Your task to perform on an android device: toggle sleep mode Image 0: 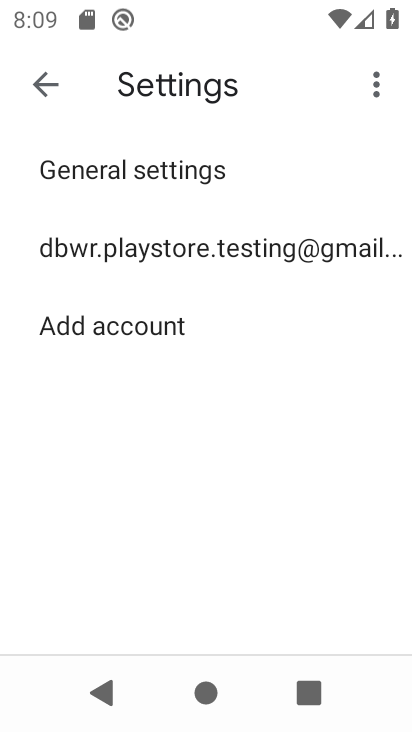
Step 0: press home button
Your task to perform on an android device: toggle sleep mode Image 1: 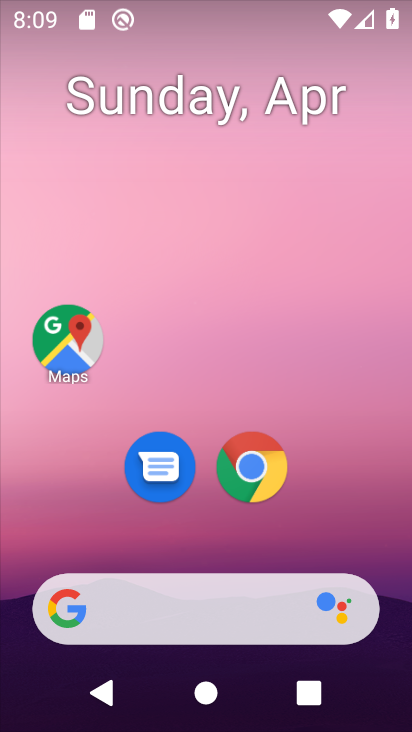
Step 1: drag from (316, 290) to (314, 54)
Your task to perform on an android device: toggle sleep mode Image 2: 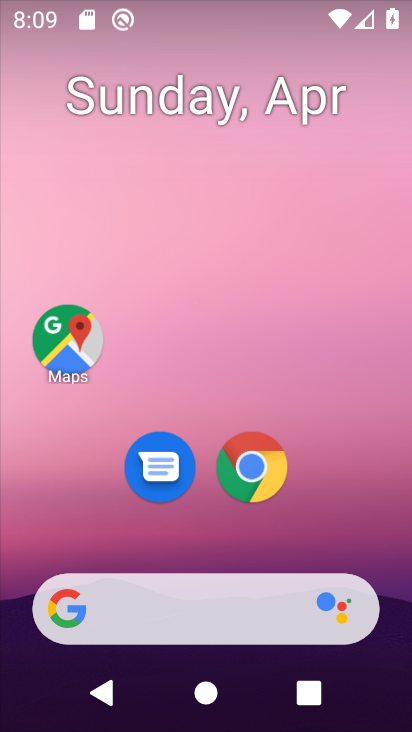
Step 2: drag from (322, 543) to (253, 15)
Your task to perform on an android device: toggle sleep mode Image 3: 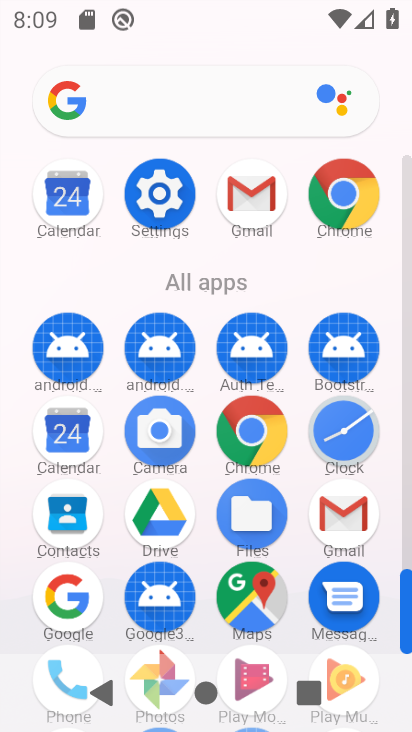
Step 3: click (152, 176)
Your task to perform on an android device: toggle sleep mode Image 4: 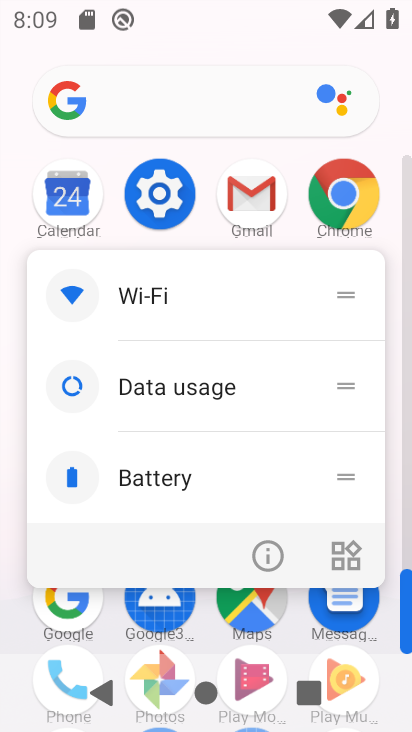
Step 4: click (152, 176)
Your task to perform on an android device: toggle sleep mode Image 5: 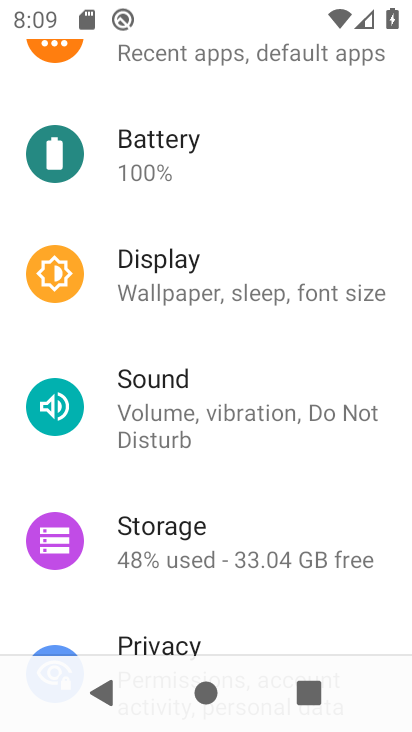
Step 5: drag from (268, 386) to (288, 464)
Your task to perform on an android device: toggle sleep mode Image 6: 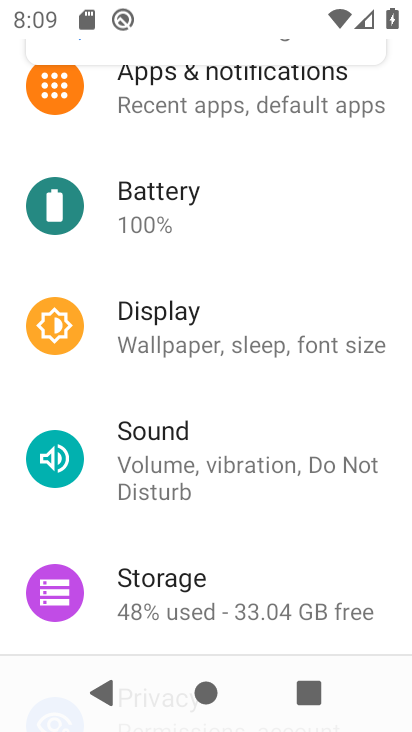
Step 6: drag from (248, 328) to (276, 478)
Your task to perform on an android device: toggle sleep mode Image 7: 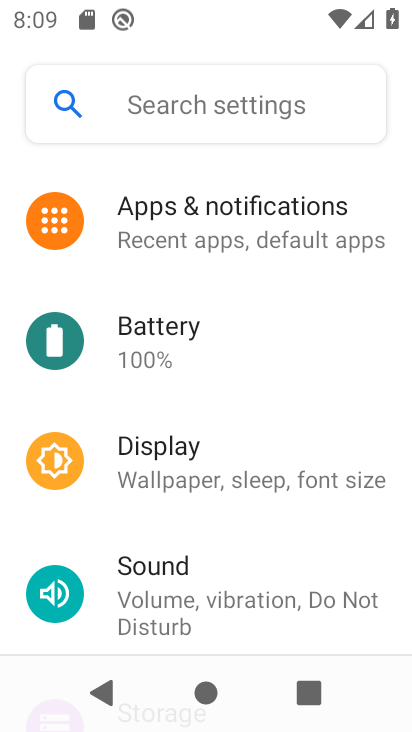
Step 7: drag from (258, 338) to (263, 428)
Your task to perform on an android device: toggle sleep mode Image 8: 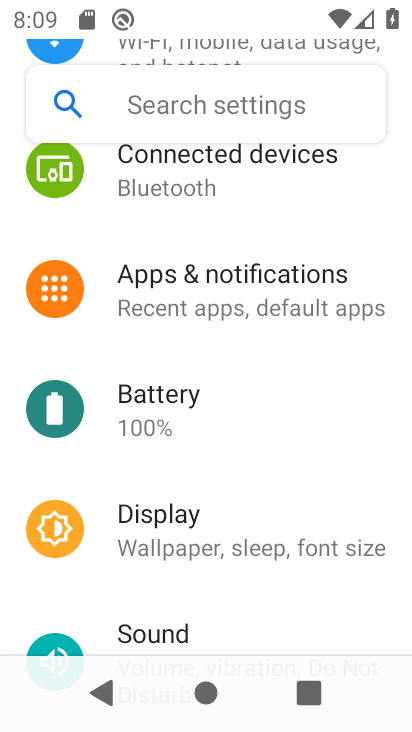
Step 8: drag from (233, 344) to (252, 443)
Your task to perform on an android device: toggle sleep mode Image 9: 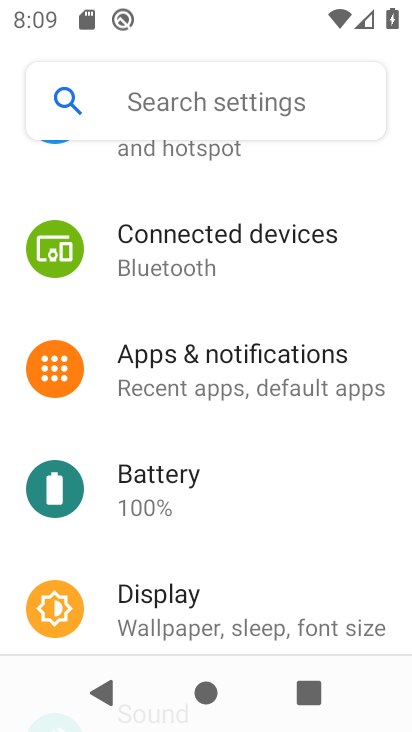
Step 9: drag from (241, 361) to (262, 464)
Your task to perform on an android device: toggle sleep mode Image 10: 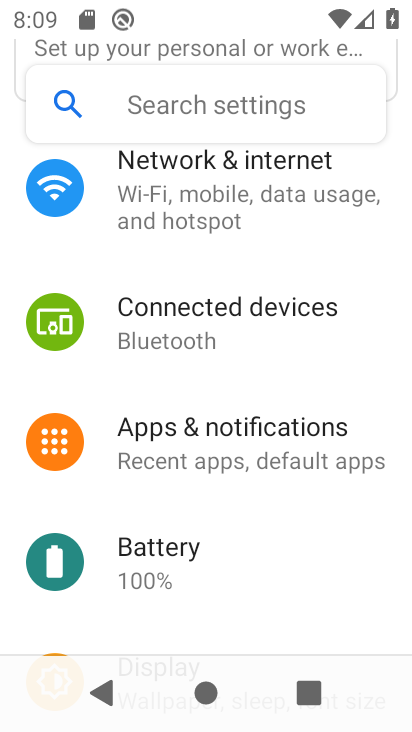
Step 10: drag from (218, 304) to (246, 407)
Your task to perform on an android device: toggle sleep mode Image 11: 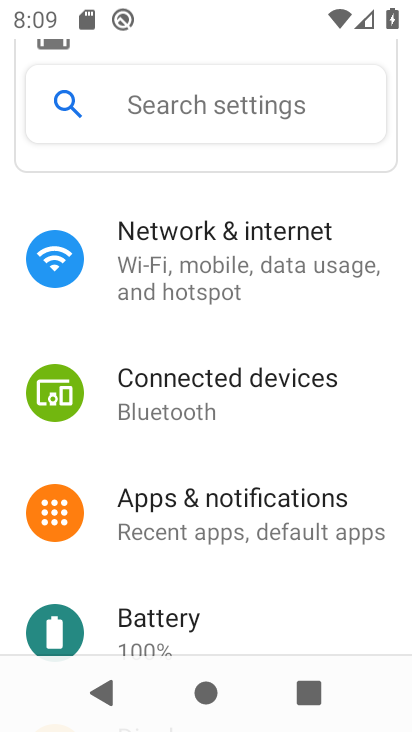
Step 11: drag from (229, 325) to (258, 416)
Your task to perform on an android device: toggle sleep mode Image 12: 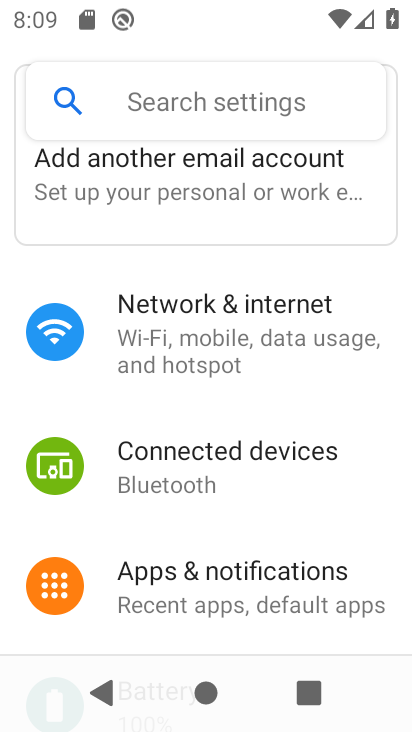
Step 12: drag from (225, 473) to (223, 372)
Your task to perform on an android device: toggle sleep mode Image 13: 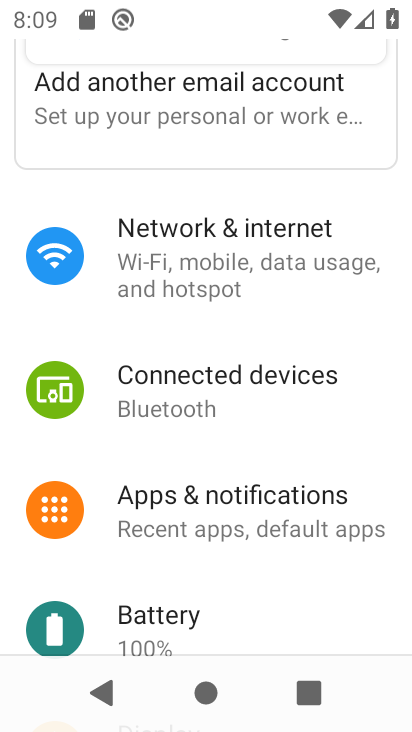
Step 13: drag from (228, 491) to (226, 393)
Your task to perform on an android device: toggle sleep mode Image 14: 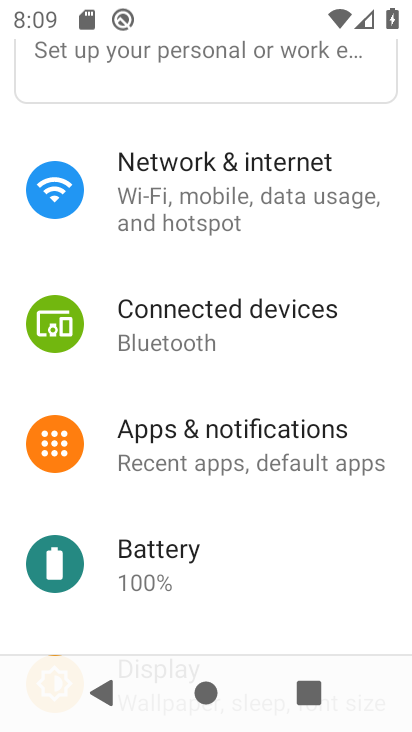
Step 14: drag from (250, 500) to (252, 389)
Your task to perform on an android device: toggle sleep mode Image 15: 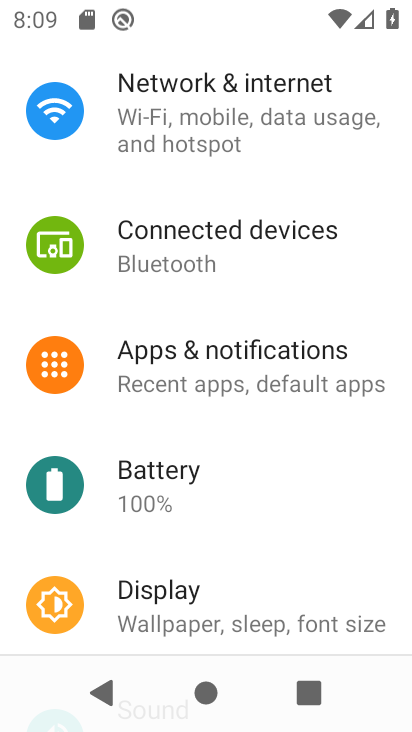
Step 15: drag from (247, 481) to (252, 345)
Your task to perform on an android device: toggle sleep mode Image 16: 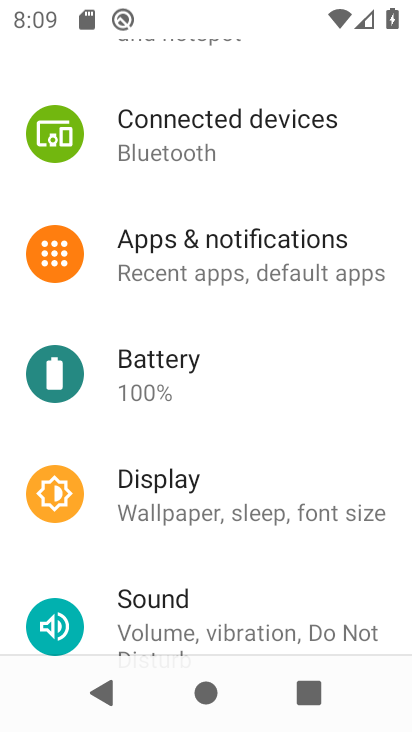
Step 16: click (266, 497)
Your task to perform on an android device: toggle sleep mode Image 17: 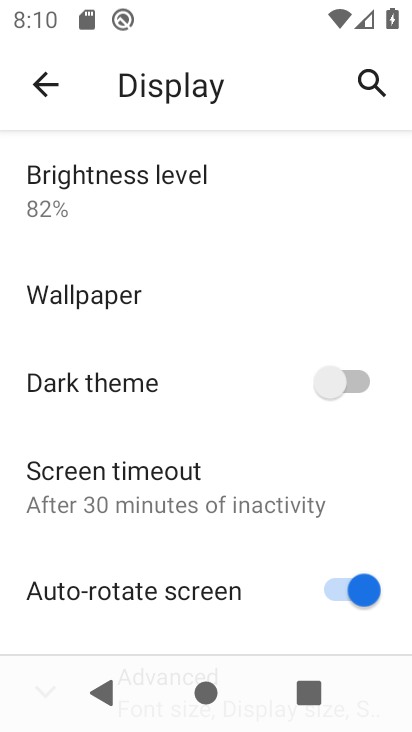
Step 17: drag from (200, 556) to (200, 484)
Your task to perform on an android device: toggle sleep mode Image 18: 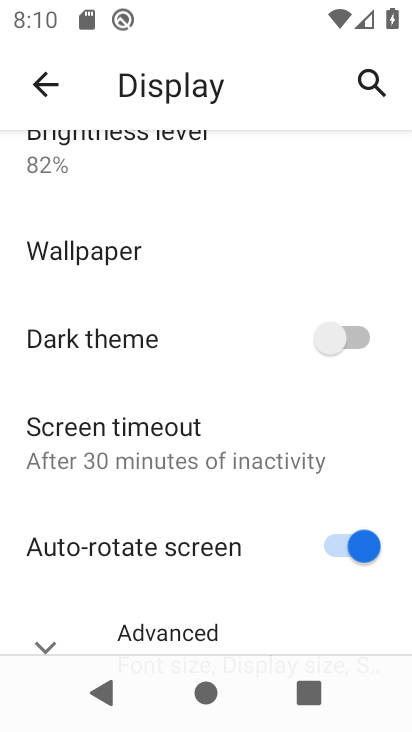
Step 18: drag from (202, 551) to (188, 362)
Your task to perform on an android device: toggle sleep mode Image 19: 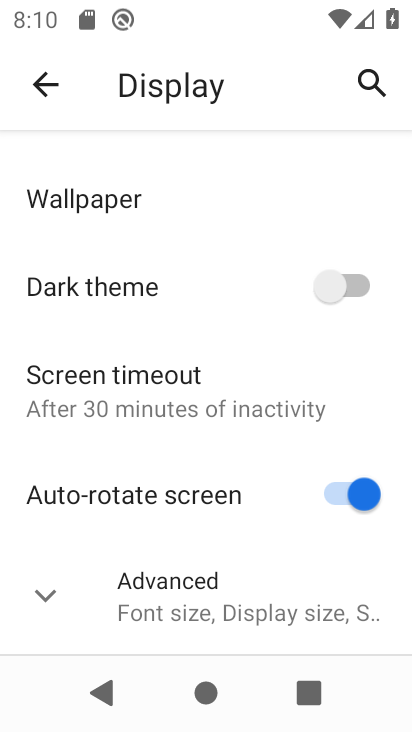
Step 19: click (206, 619)
Your task to perform on an android device: toggle sleep mode Image 20: 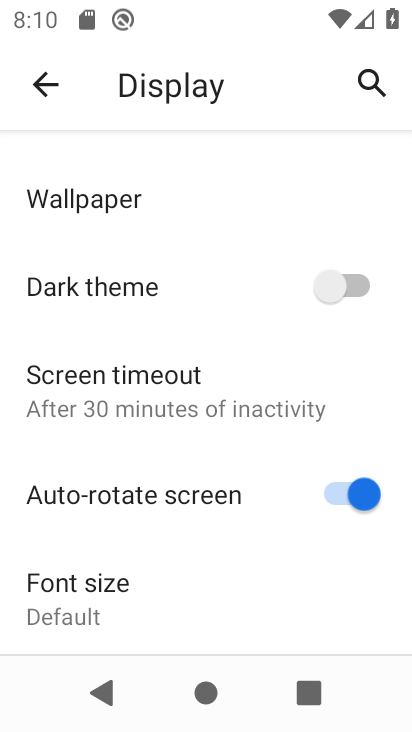
Step 20: task complete